Your task to perform on an android device: move a message to another label in the gmail app Image 0: 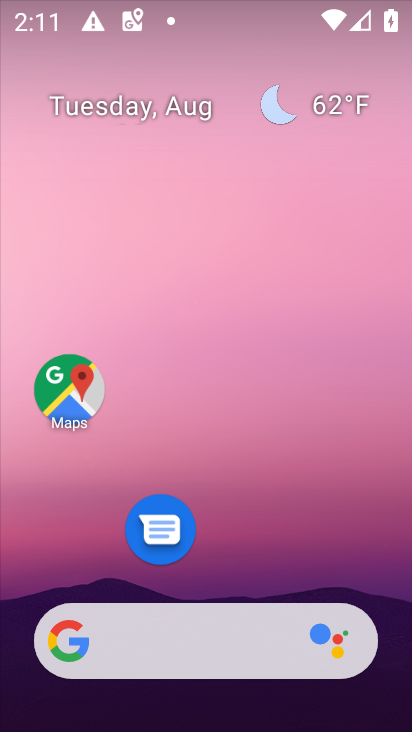
Step 0: drag from (310, 570) to (323, 44)
Your task to perform on an android device: move a message to another label in the gmail app Image 1: 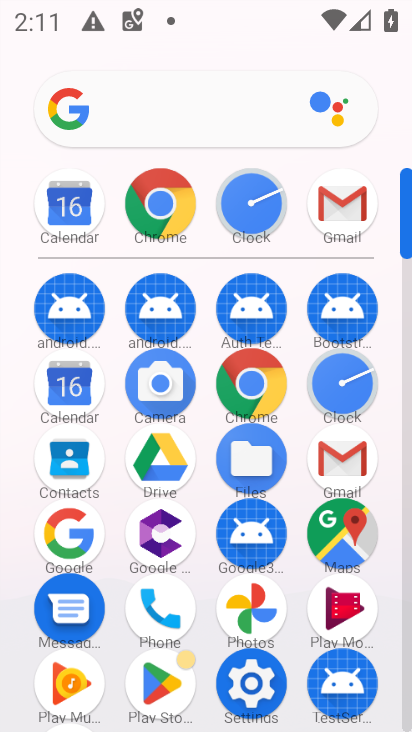
Step 1: click (345, 239)
Your task to perform on an android device: move a message to another label in the gmail app Image 2: 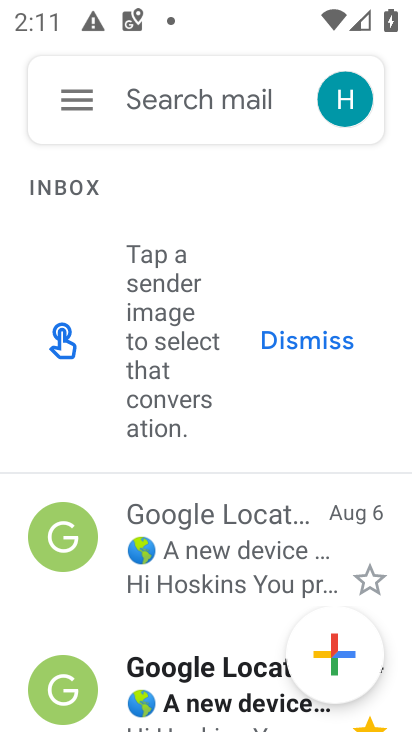
Step 2: task complete